Your task to perform on an android device: Set the phone to "Do not disturb". Image 0: 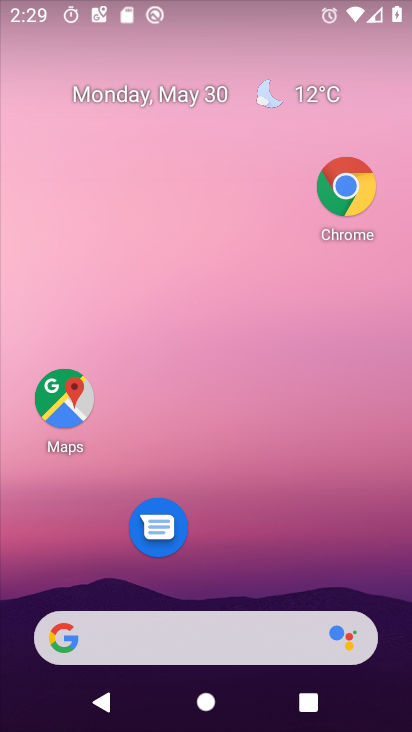
Step 0: drag from (200, 581) to (228, 112)
Your task to perform on an android device: Set the phone to "Do not disturb". Image 1: 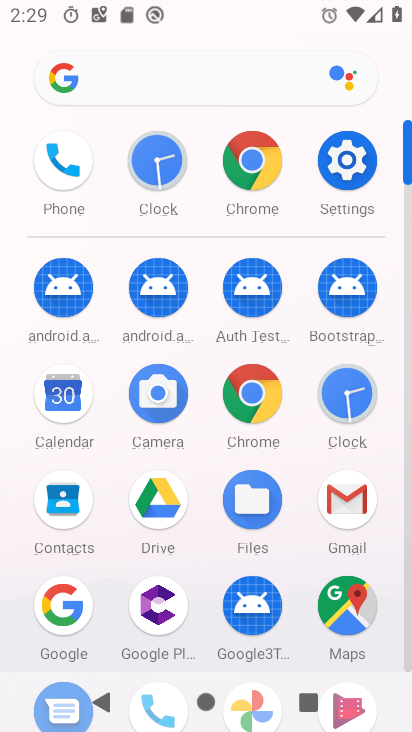
Step 1: click (345, 151)
Your task to perform on an android device: Set the phone to "Do not disturb". Image 2: 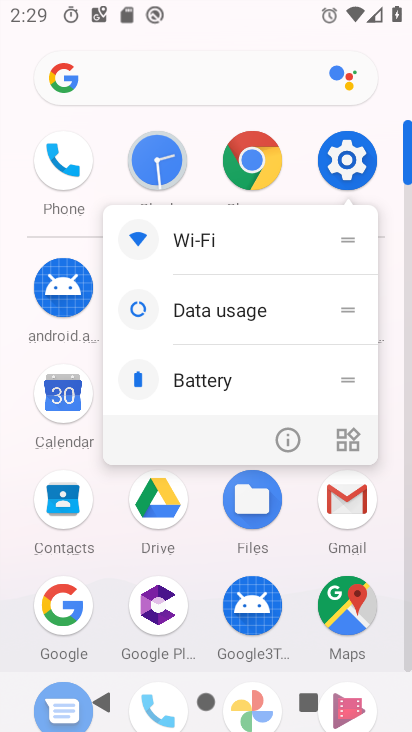
Step 2: click (339, 170)
Your task to perform on an android device: Set the phone to "Do not disturb". Image 3: 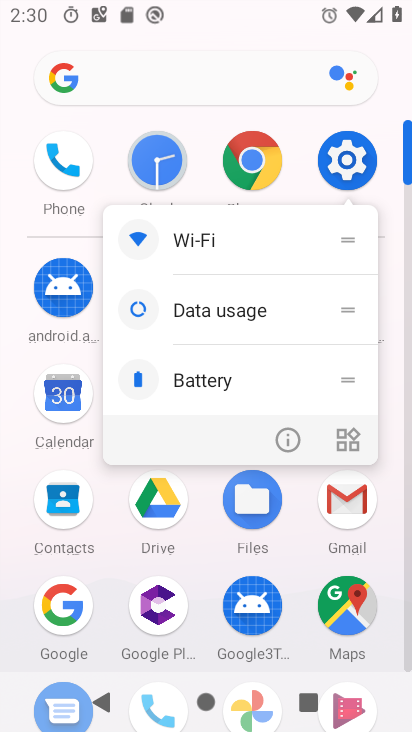
Step 3: click (344, 159)
Your task to perform on an android device: Set the phone to "Do not disturb". Image 4: 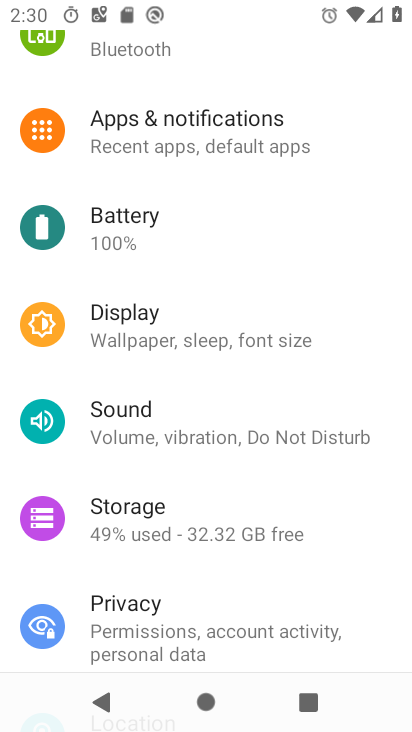
Step 4: click (205, 120)
Your task to perform on an android device: Set the phone to "Do not disturb". Image 5: 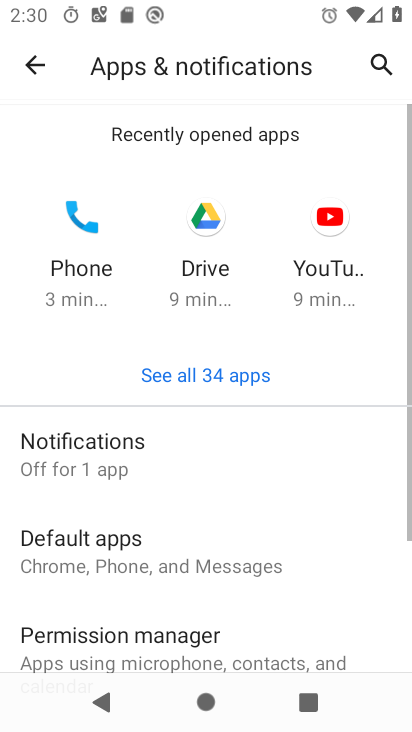
Step 5: click (126, 454)
Your task to perform on an android device: Set the phone to "Do not disturb". Image 6: 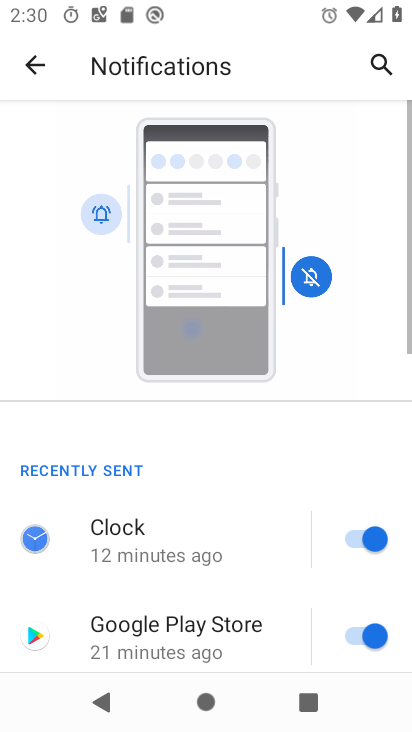
Step 6: drag from (217, 448) to (284, 88)
Your task to perform on an android device: Set the phone to "Do not disturb". Image 7: 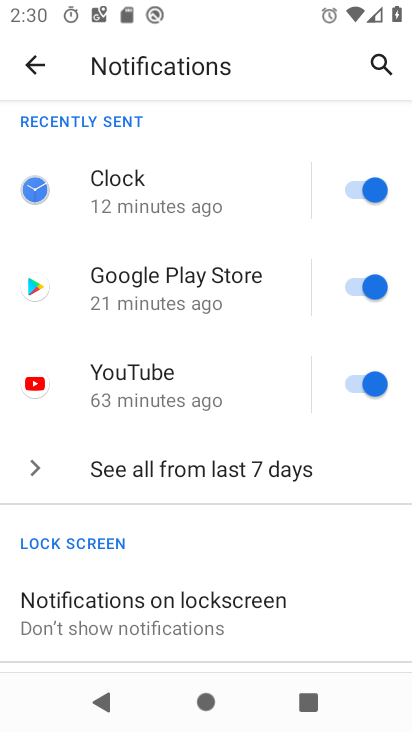
Step 7: drag from (146, 505) to (309, 65)
Your task to perform on an android device: Set the phone to "Do not disturb". Image 8: 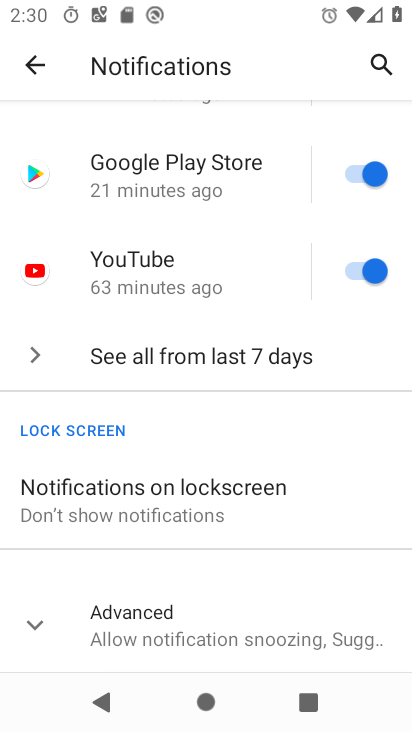
Step 8: click (184, 631)
Your task to perform on an android device: Set the phone to "Do not disturb". Image 9: 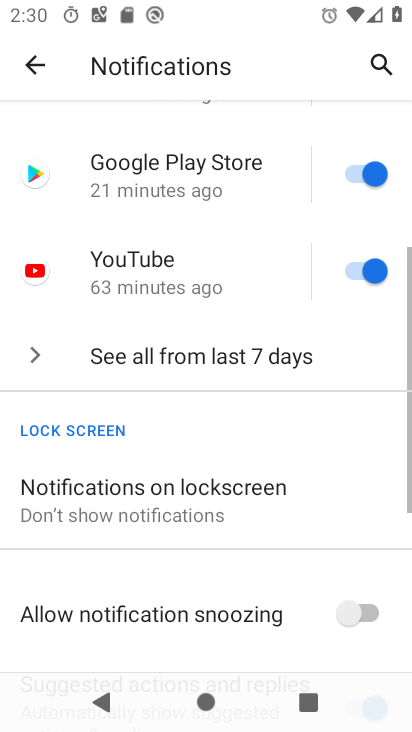
Step 9: drag from (204, 474) to (257, 3)
Your task to perform on an android device: Set the phone to "Do not disturb". Image 10: 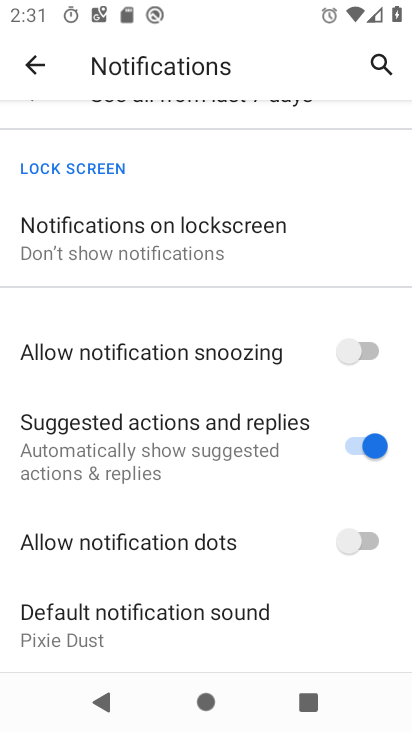
Step 10: drag from (179, 571) to (278, 28)
Your task to perform on an android device: Set the phone to "Do not disturb". Image 11: 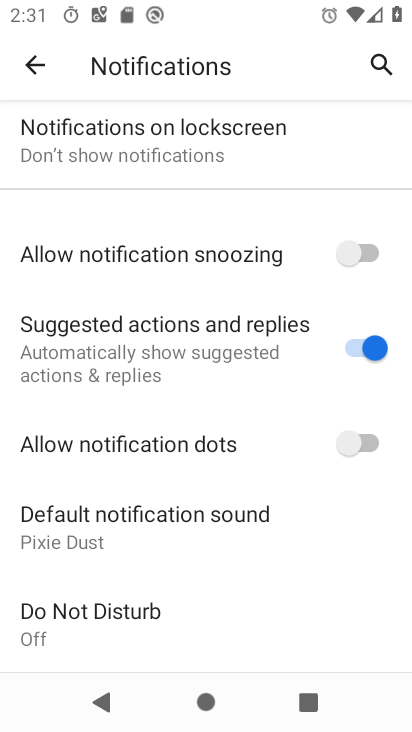
Step 11: drag from (116, 302) to (169, 714)
Your task to perform on an android device: Set the phone to "Do not disturb". Image 12: 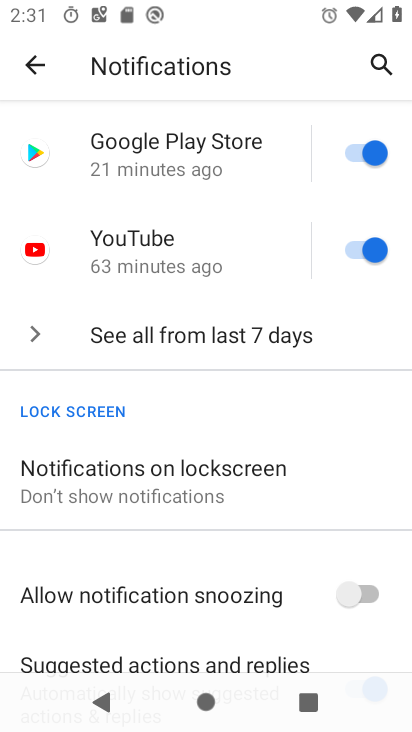
Step 12: drag from (177, 554) to (185, 99)
Your task to perform on an android device: Set the phone to "Do not disturb". Image 13: 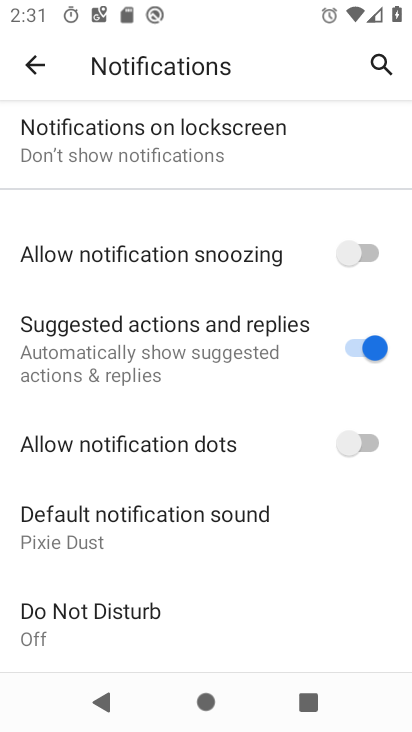
Step 13: drag from (118, 586) to (192, 84)
Your task to perform on an android device: Set the phone to "Do not disturb". Image 14: 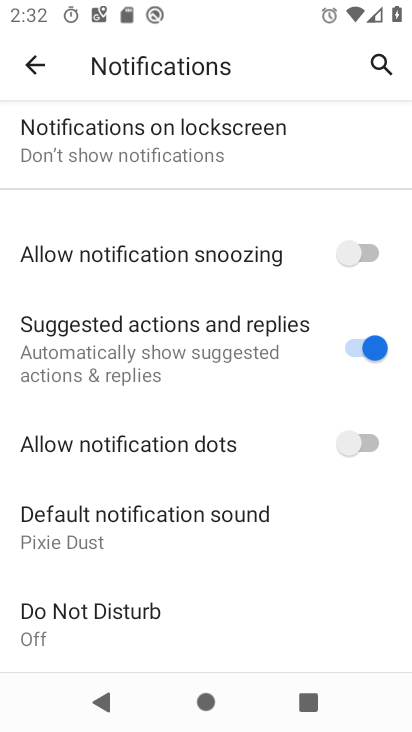
Step 14: click (88, 587)
Your task to perform on an android device: Set the phone to "Do not disturb". Image 15: 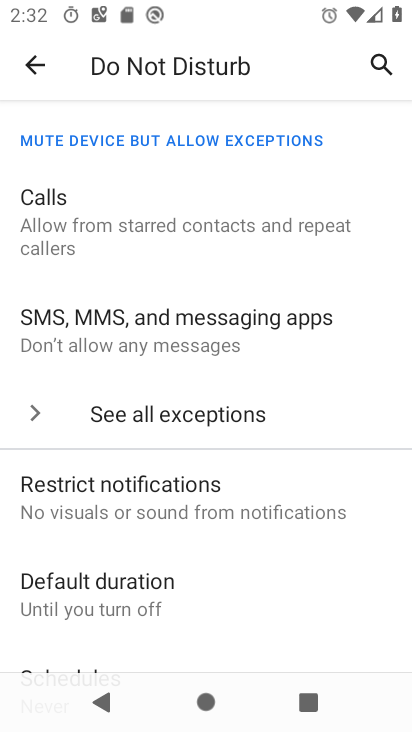
Step 15: drag from (164, 541) to (249, 2)
Your task to perform on an android device: Set the phone to "Do not disturb". Image 16: 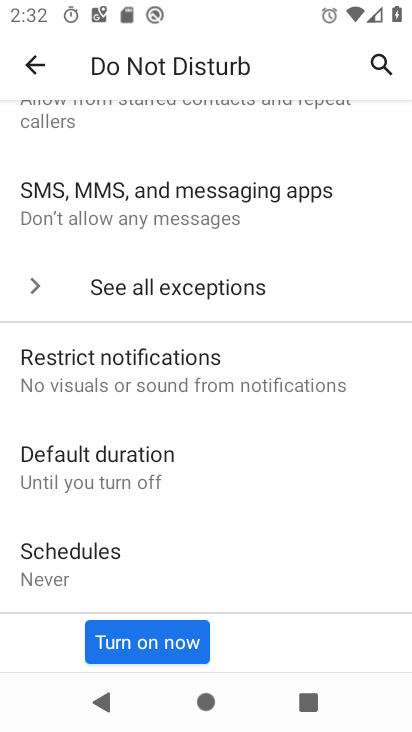
Step 16: click (128, 632)
Your task to perform on an android device: Set the phone to "Do not disturb". Image 17: 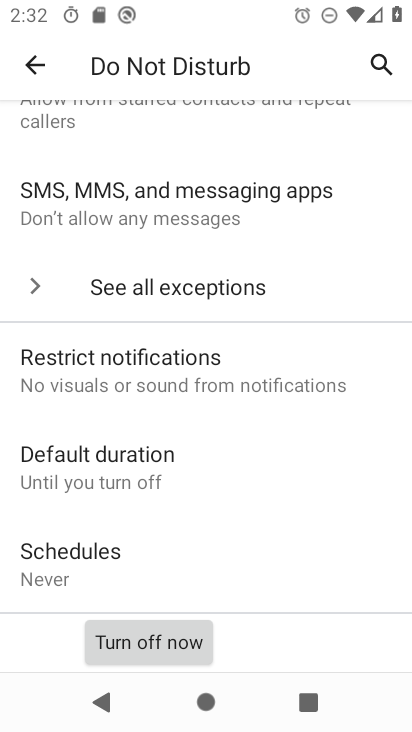
Step 17: task complete